Your task to perform on an android device: Open ESPN.com Image 0: 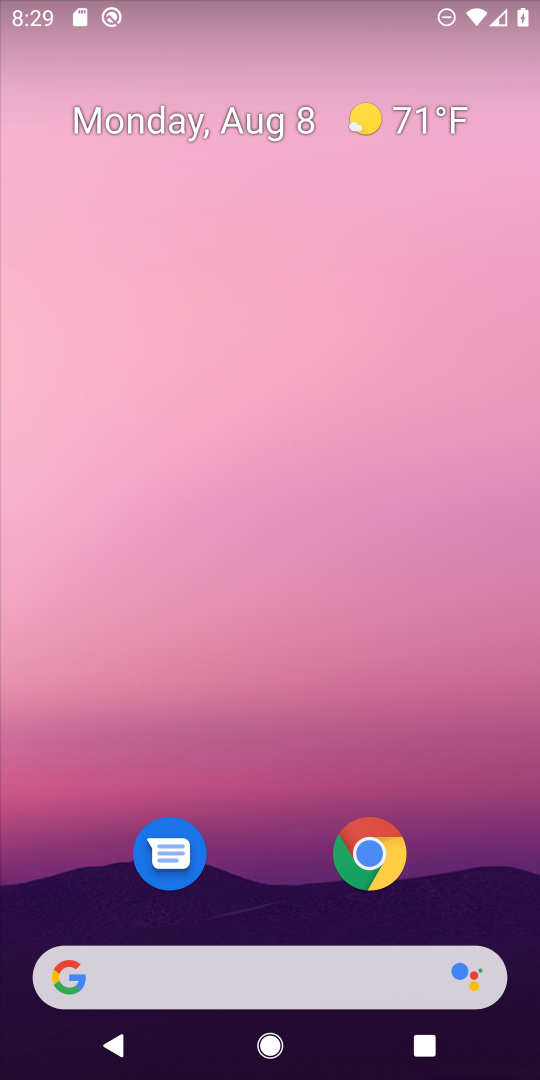
Step 0: click (375, 851)
Your task to perform on an android device: Open ESPN.com Image 1: 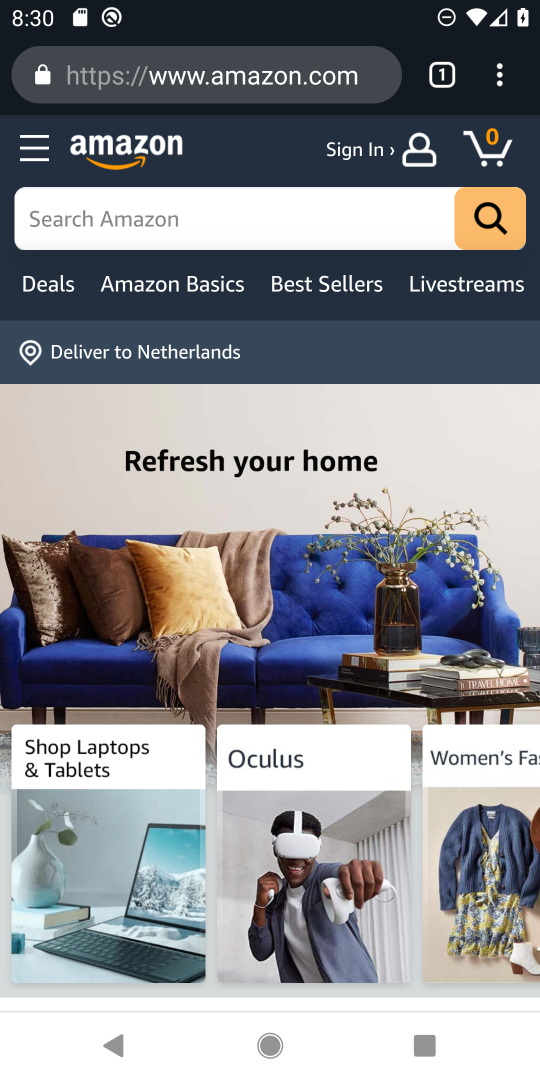
Step 1: click (431, 73)
Your task to perform on an android device: Open ESPN.com Image 2: 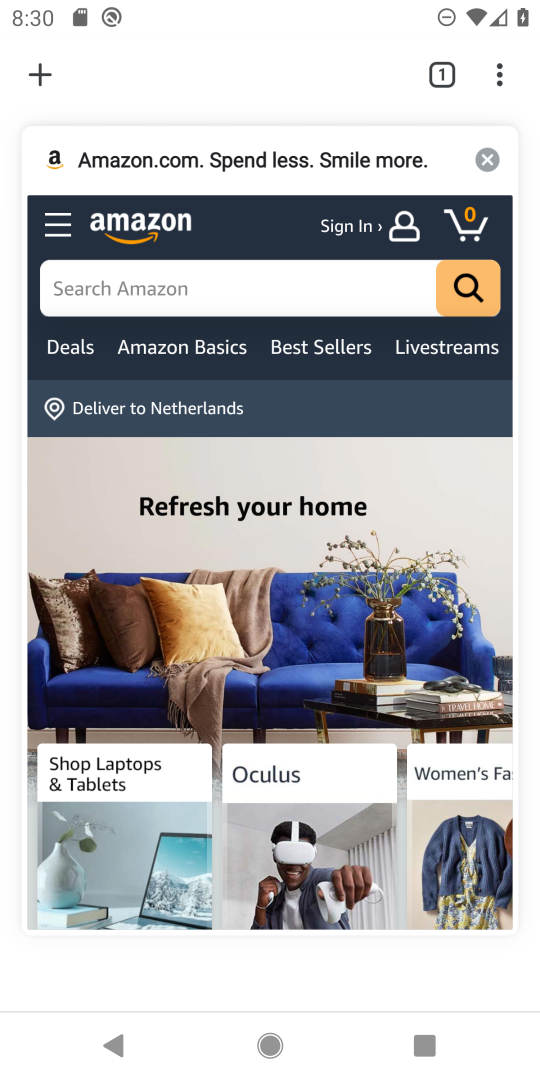
Step 2: click (29, 83)
Your task to perform on an android device: Open ESPN.com Image 3: 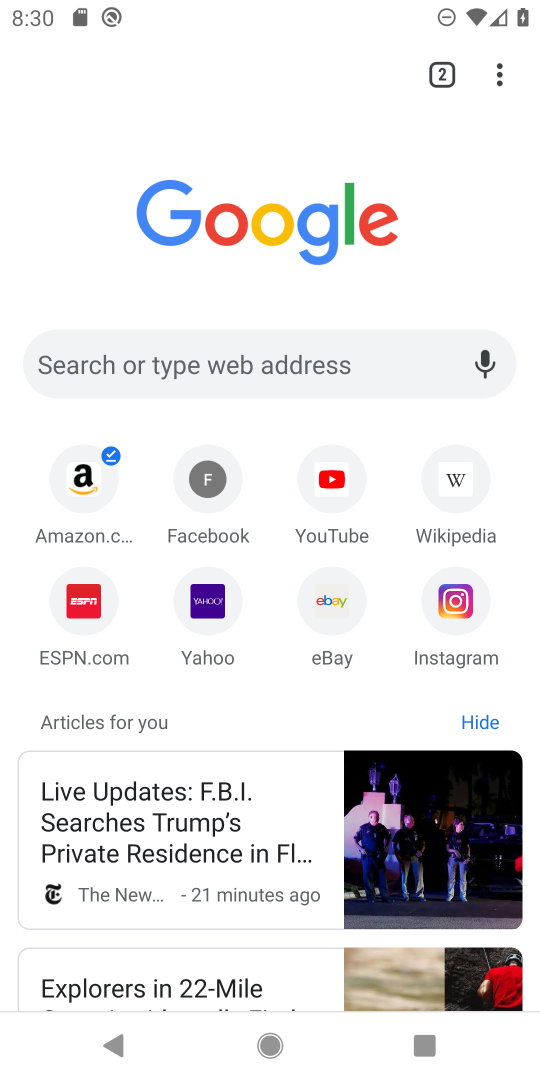
Step 3: click (83, 617)
Your task to perform on an android device: Open ESPN.com Image 4: 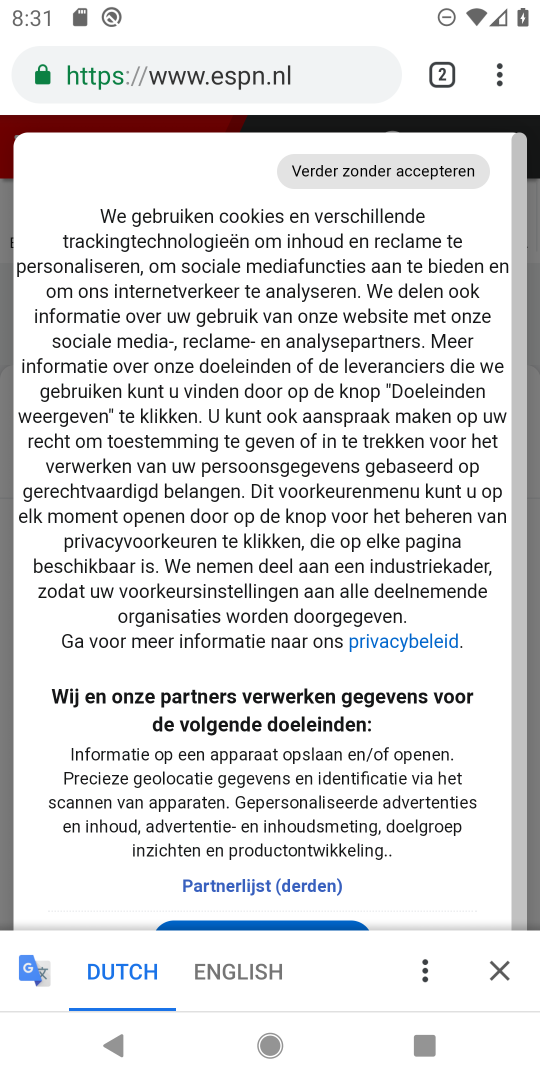
Step 4: task complete